Your task to perform on an android device: Go to internet settings Image 0: 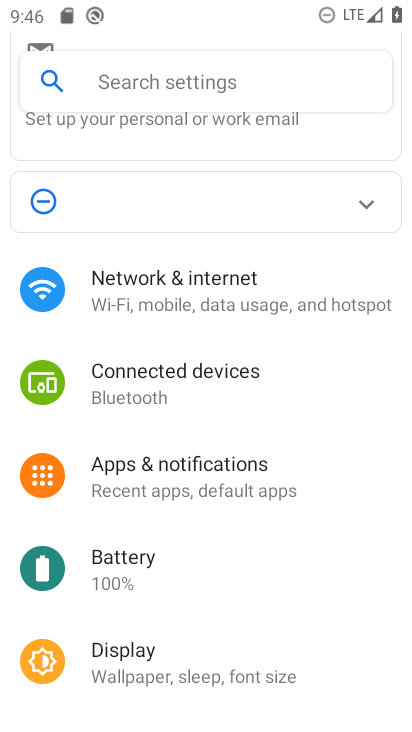
Step 0: click (252, 295)
Your task to perform on an android device: Go to internet settings Image 1: 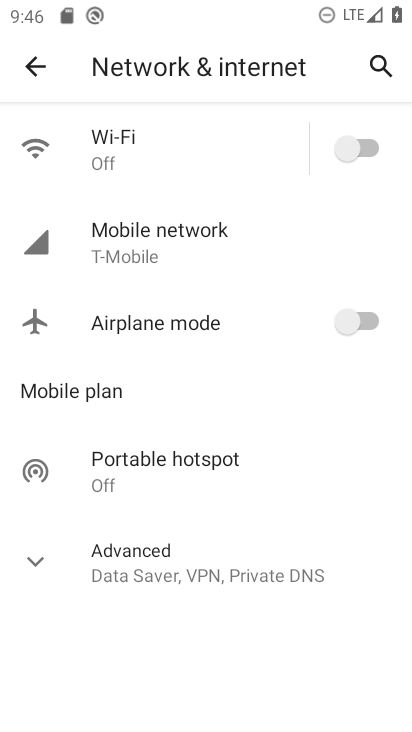
Step 1: task complete